Your task to perform on an android device: change alarm snooze length Image 0: 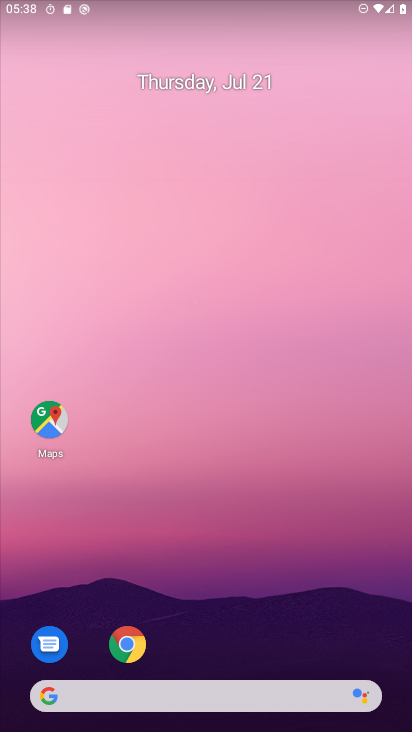
Step 0: drag from (183, 617) to (141, 170)
Your task to perform on an android device: change alarm snooze length Image 1: 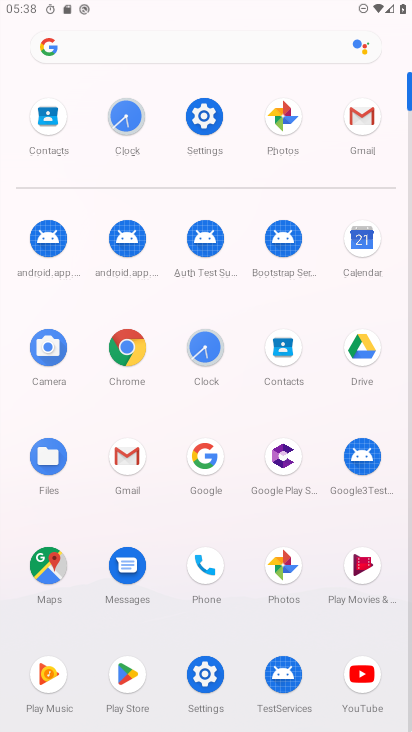
Step 1: click (131, 124)
Your task to perform on an android device: change alarm snooze length Image 2: 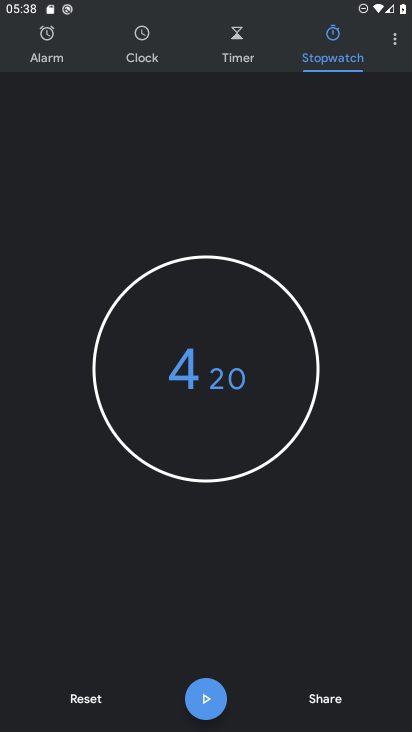
Step 2: click (391, 39)
Your task to perform on an android device: change alarm snooze length Image 3: 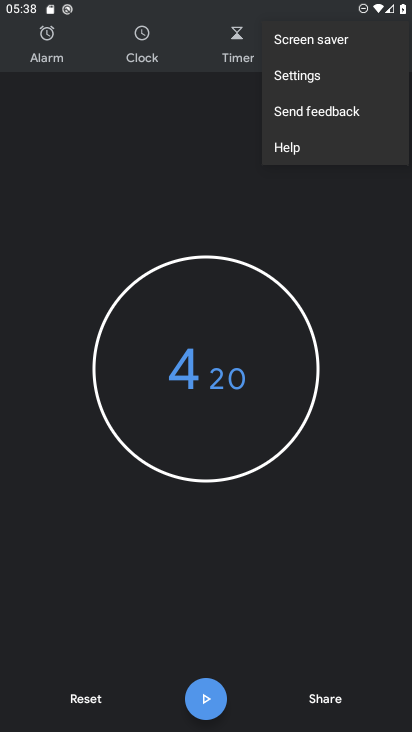
Step 3: click (331, 74)
Your task to perform on an android device: change alarm snooze length Image 4: 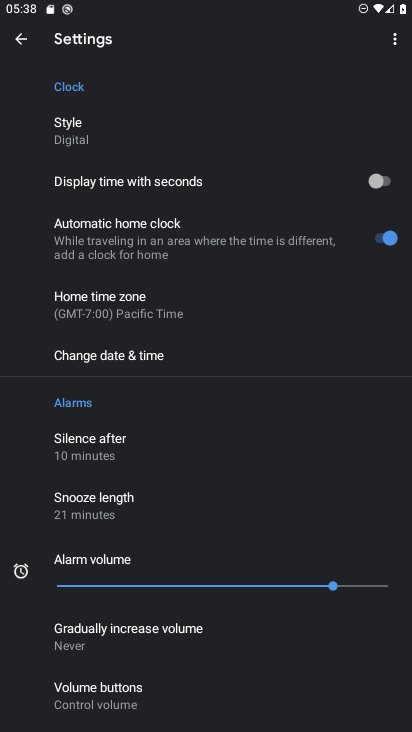
Step 4: click (113, 505)
Your task to perform on an android device: change alarm snooze length Image 5: 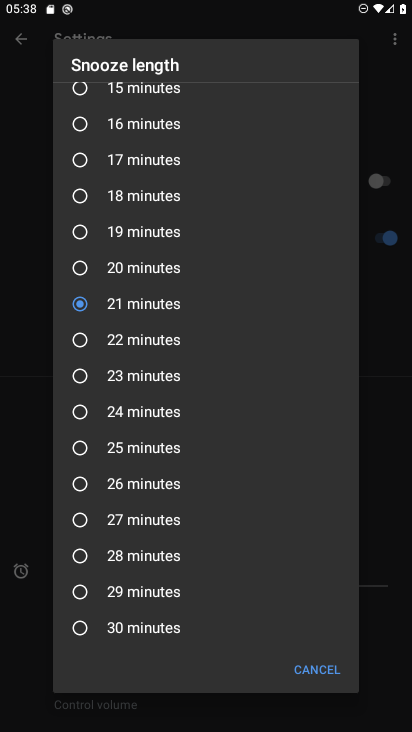
Step 5: click (86, 160)
Your task to perform on an android device: change alarm snooze length Image 6: 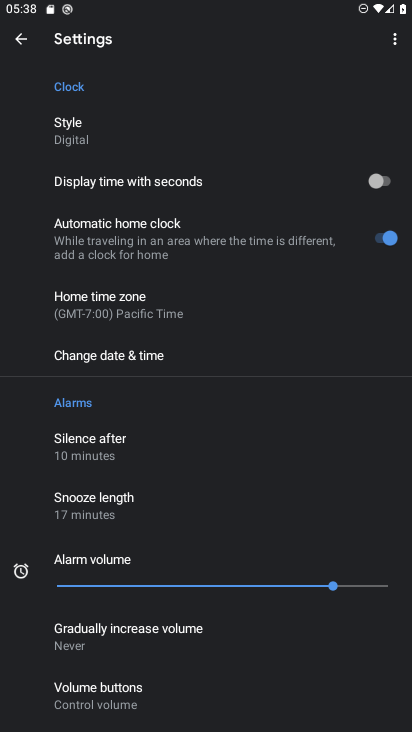
Step 6: task complete